Your task to perform on an android device: find snoozed emails in the gmail app Image 0: 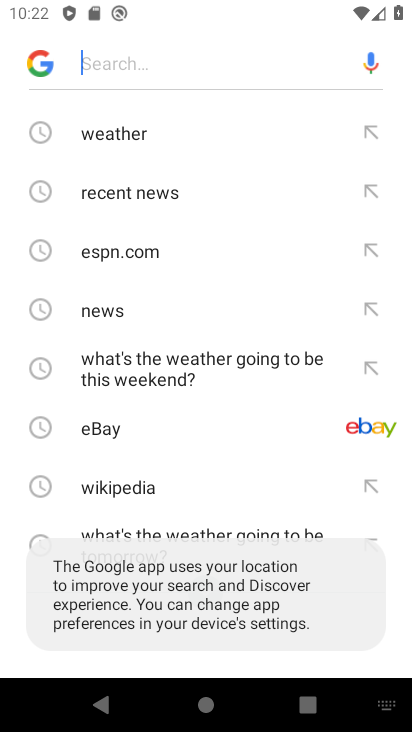
Step 0: press home button
Your task to perform on an android device: find snoozed emails in the gmail app Image 1: 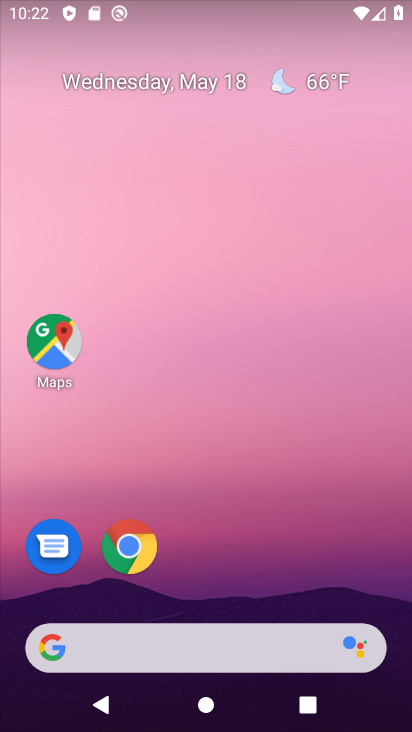
Step 1: drag from (232, 592) to (212, 78)
Your task to perform on an android device: find snoozed emails in the gmail app Image 2: 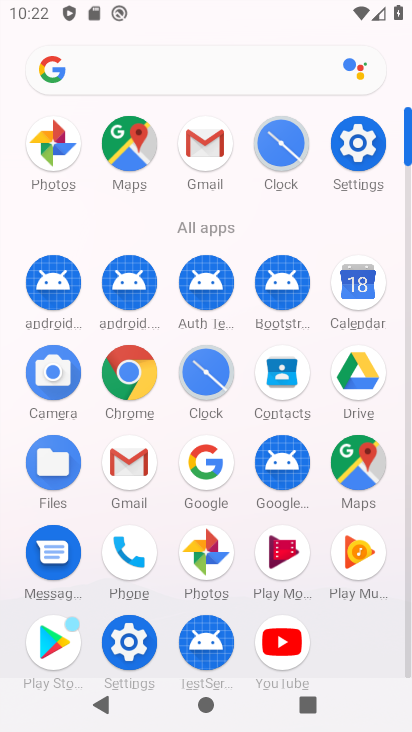
Step 2: click (204, 163)
Your task to perform on an android device: find snoozed emails in the gmail app Image 3: 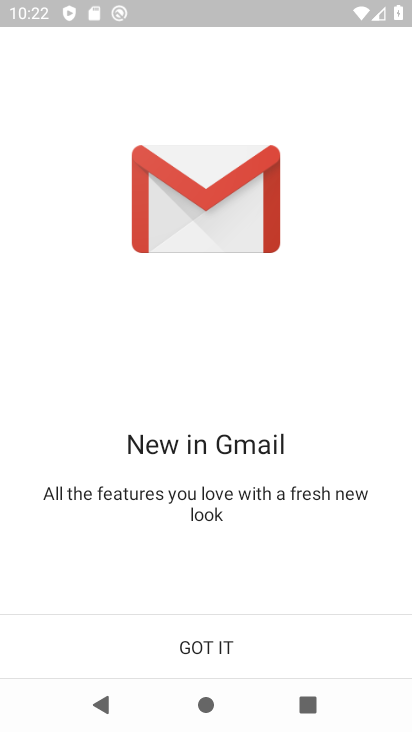
Step 3: click (234, 641)
Your task to perform on an android device: find snoozed emails in the gmail app Image 4: 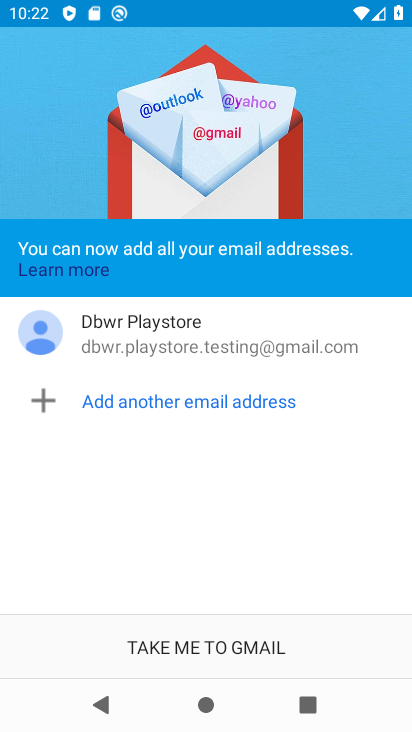
Step 4: click (234, 641)
Your task to perform on an android device: find snoozed emails in the gmail app Image 5: 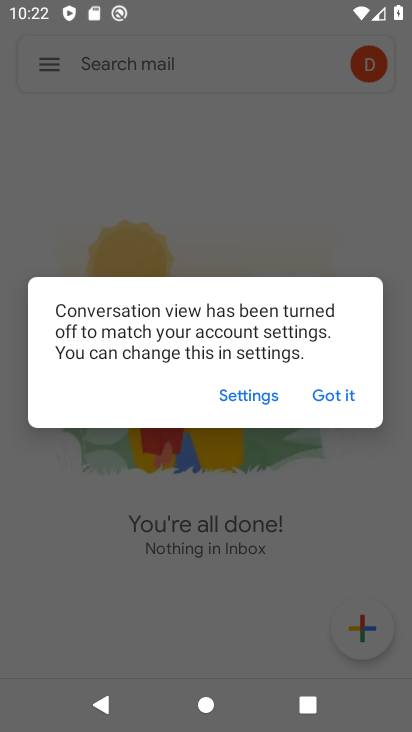
Step 5: click (333, 400)
Your task to perform on an android device: find snoozed emails in the gmail app Image 6: 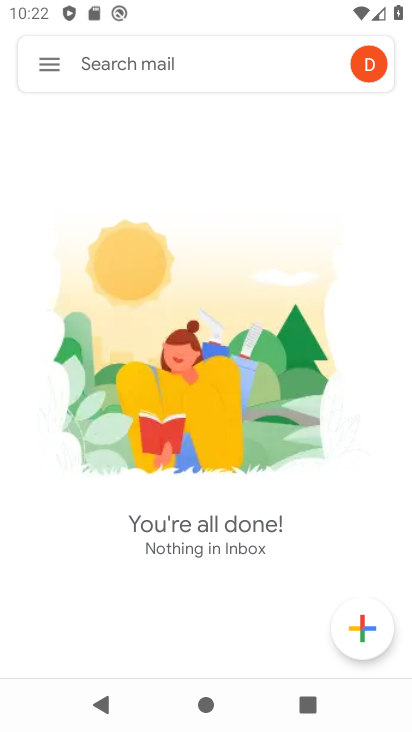
Step 6: click (39, 68)
Your task to perform on an android device: find snoozed emails in the gmail app Image 7: 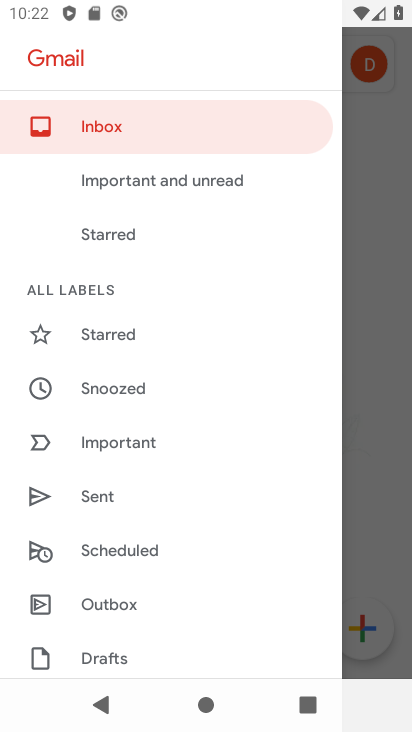
Step 7: click (102, 380)
Your task to perform on an android device: find snoozed emails in the gmail app Image 8: 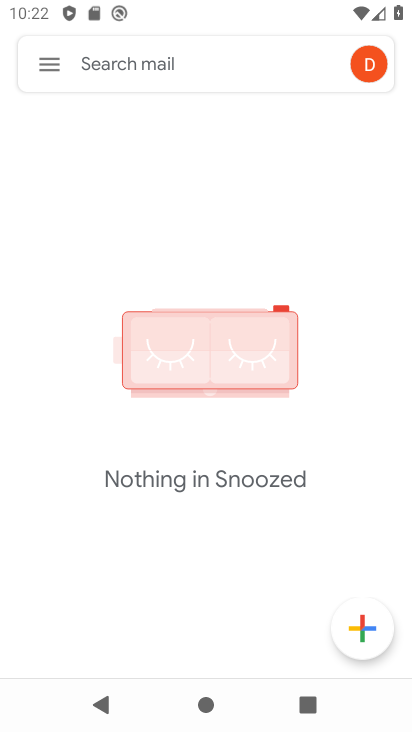
Step 8: task complete